Your task to perform on an android device: turn on the 12-hour format for clock Image 0: 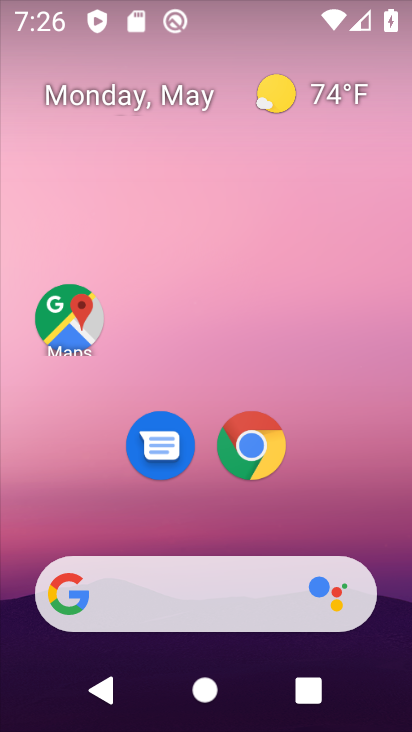
Step 0: press home button
Your task to perform on an android device: turn on the 12-hour format for clock Image 1: 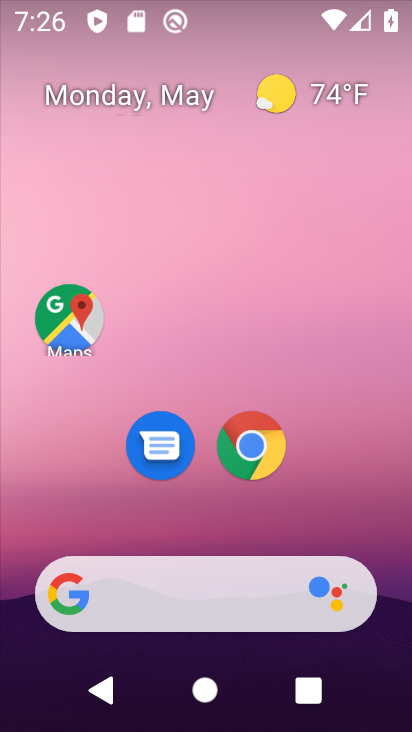
Step 1: drag from (153, 586) to (304, 26)
Your task to perform on an android device: turn on the 12-hour format for clock Image 2: 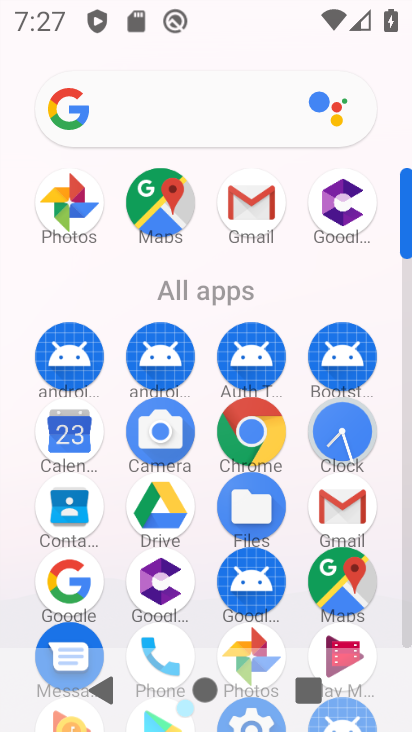
Step 2: drag from (195, 547) to (357, 177)
Your task to perform on an android device: turn on the 12-hour format for clock Image 3: 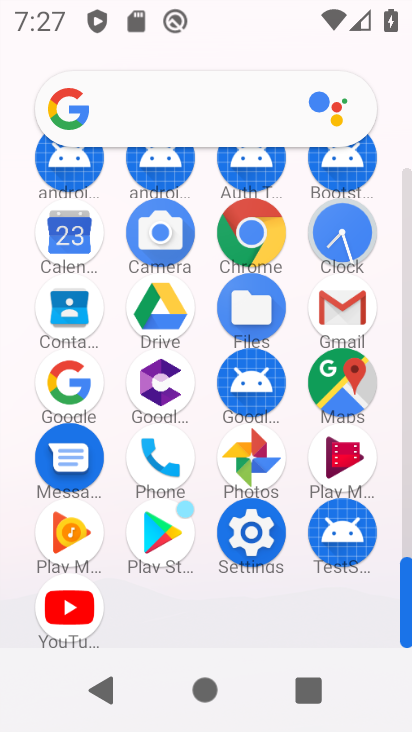
Step 3: click (339, 227)
Your task to perform on an android device: turn on the 12-hour format for clock Image 4: 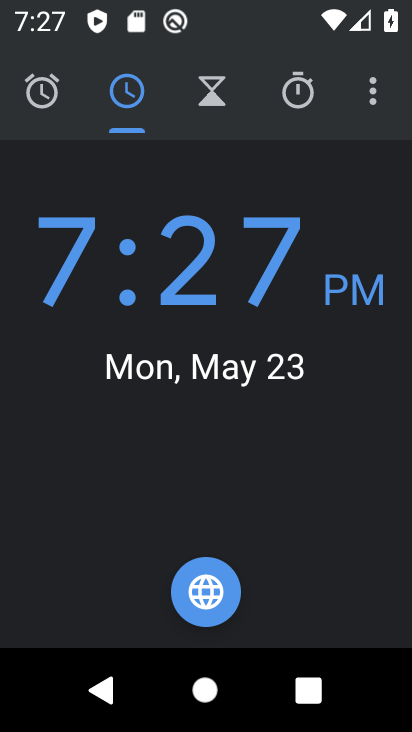
Step 4: click (373, 95)
Your task to perform on an android device: turn on the 12-hour format for clock Image 5: 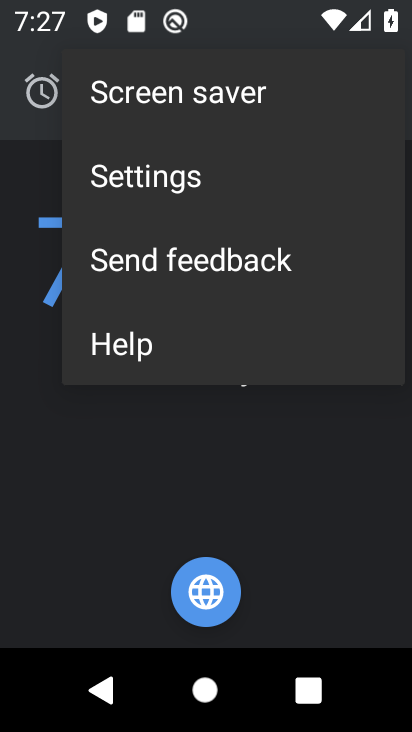
Step 5: click (147, 181)
Your task to perform on an android device: turn on the 12-hour format for clock Image 6: 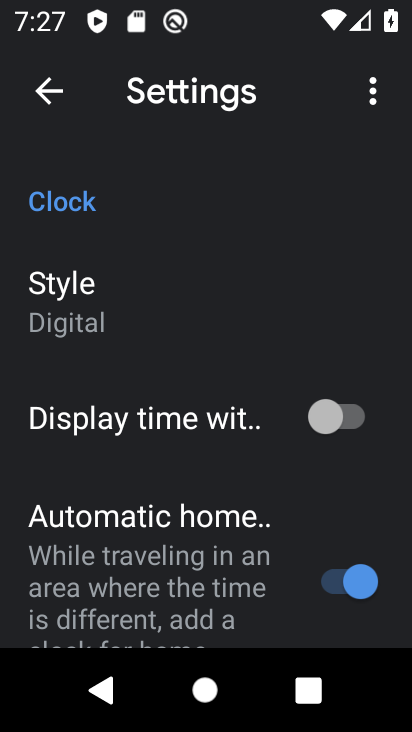
Step 6: drag from (191, 621) to (387, 37)
Your task to perform on an android device: turn on the 12-hour format for clock Image 7: 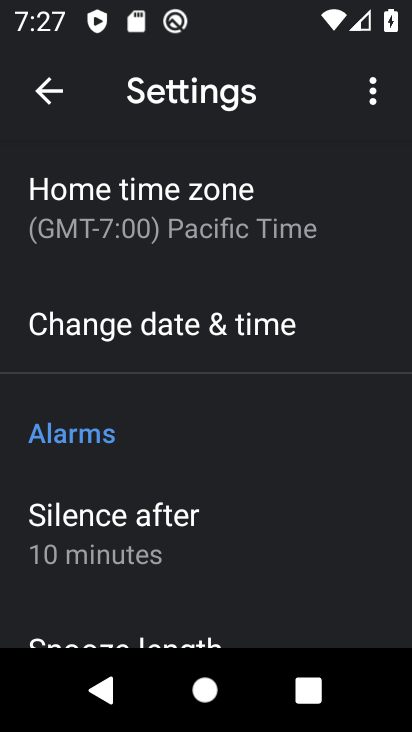
Step 7: click (186, 325)
Your task to perform on an android device: turn on the 12-hour format for clock Image 8: 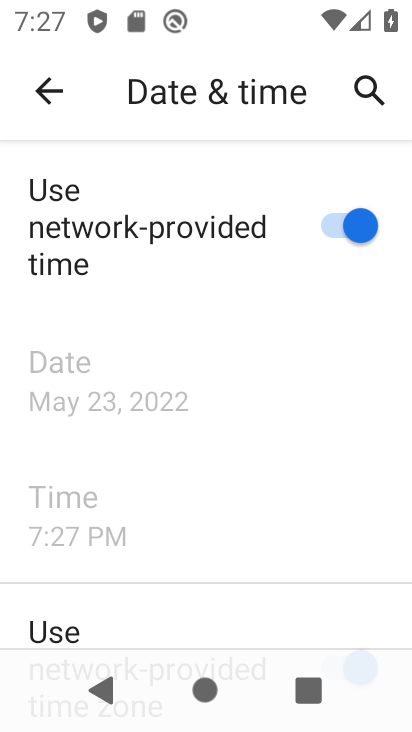
Step 8: task complete